Your task to perform on an android device: Open calendar and show me the second week of next month Image 0: 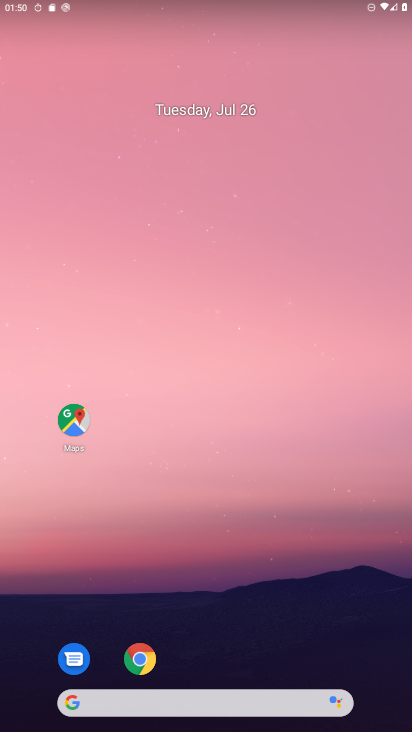
Step 0: drag from (33, 686) to (266, 5)
Your task to perform on an android device: Open calendar and show me the second week of next month Image 1: 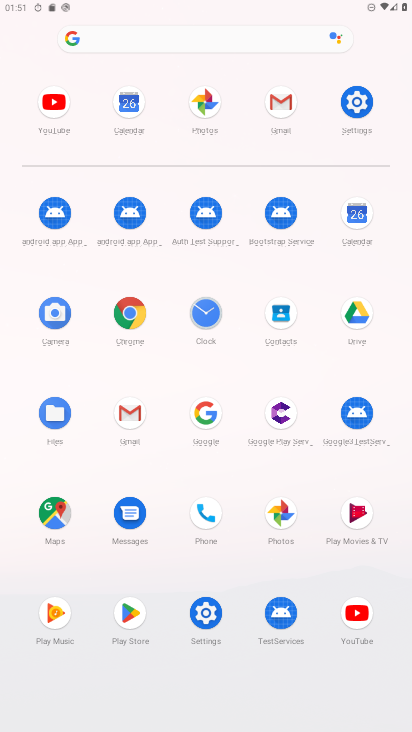
Step 1: click (357, 219)
Your task to perform on an android device: Open calendar and show me the second week of next month Image 2: 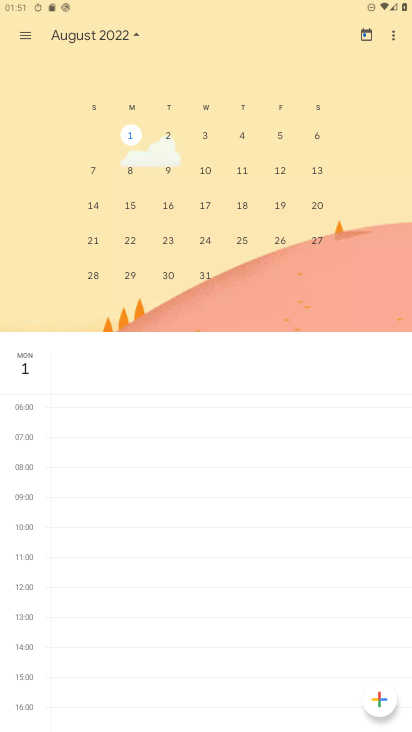
Step 2: click (129, 174)
Your task to perform on an android device: Open calendar and show me the second week of next month Image 3: 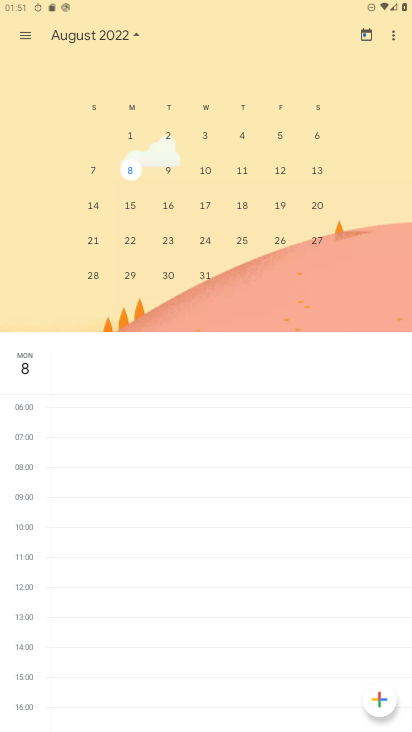
Step 3: task complete